Your task to perform on an android device: Where can I buy a nice beach chair? Image 0: 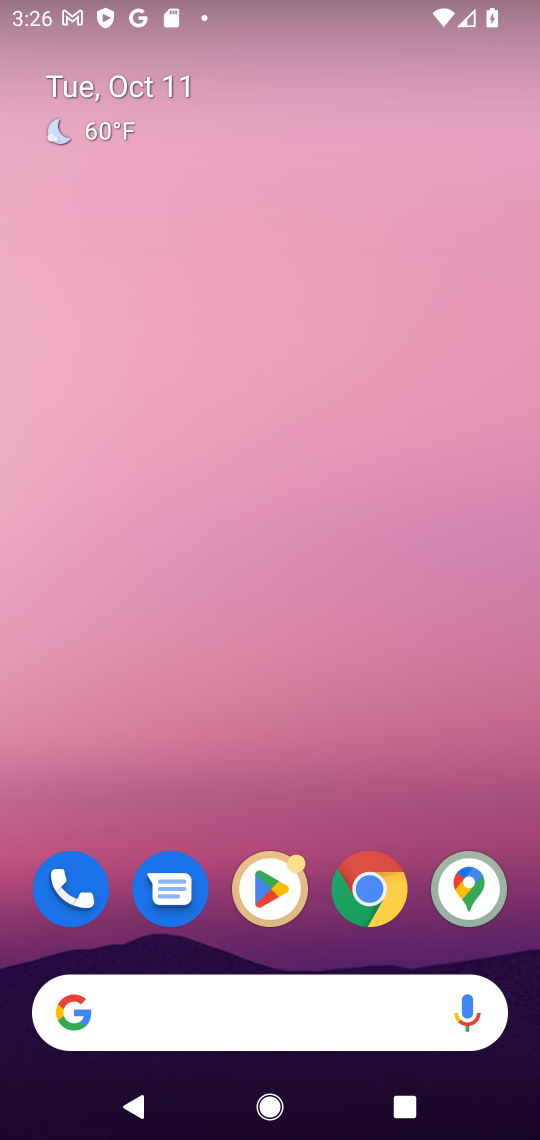
Step 0: drag from (259, 975) to (278, 426)
Your task to perform on an android device: Where can I buy a nice beach chair? Image 1: 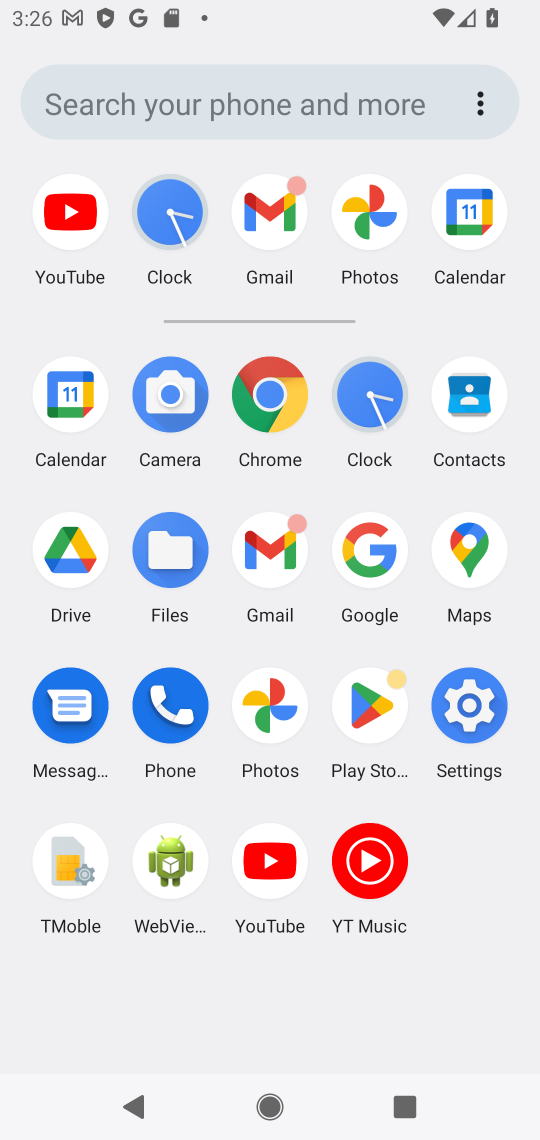
Step 1: click (372, 535)
Your task to perform on an android device: Where can I buy a nice beach chair? Image 2: 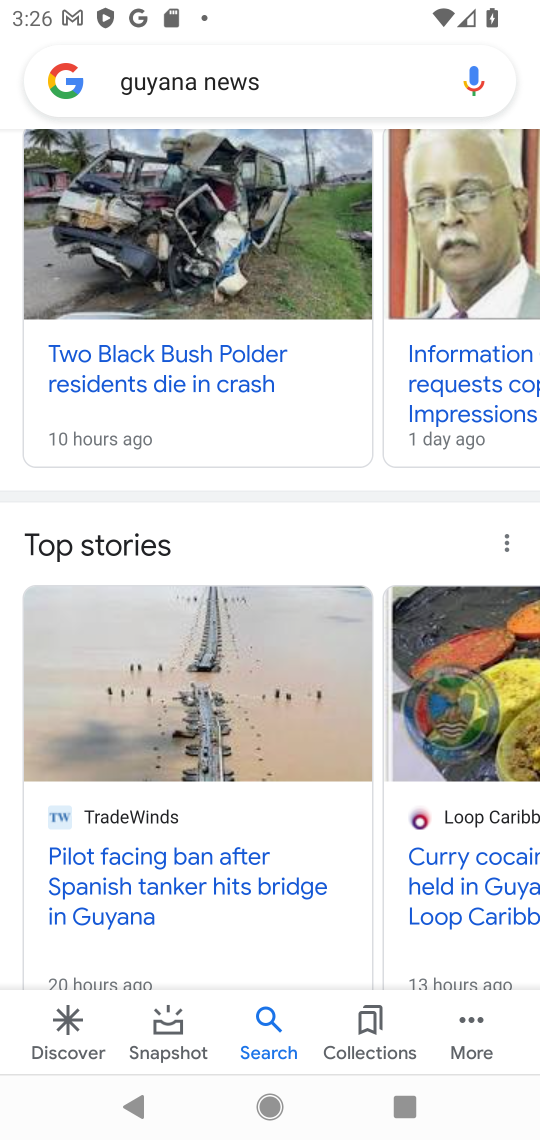
Step 2: click (290, 75)
Your task to perform on an android device: Where can I buy a nice beach chair? Image 3: 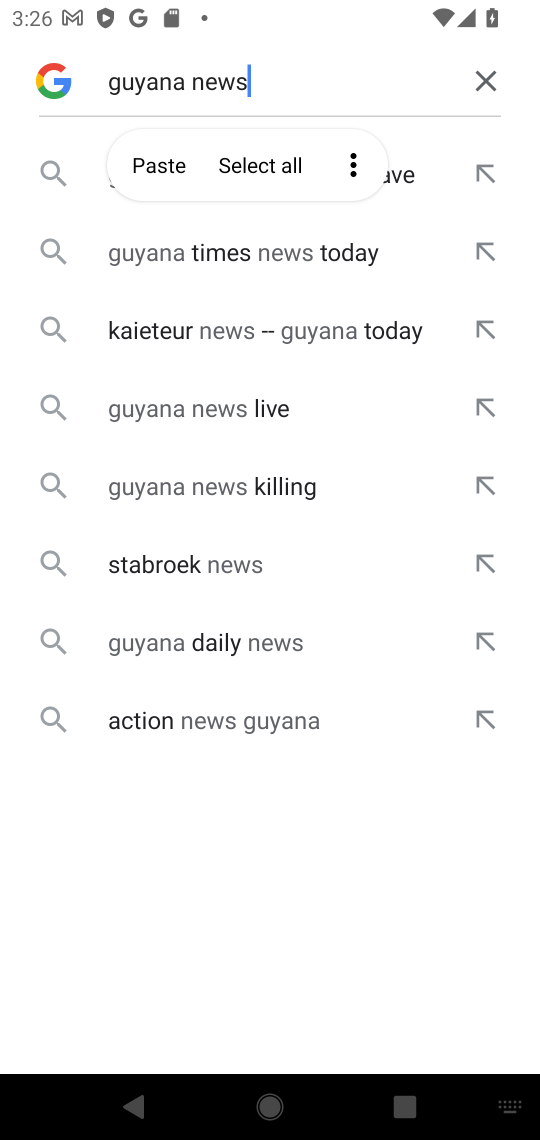
Step 3: click (489, 84)
Your task to perform on an android device: Where can I buy a nice beach chair? Image 4: 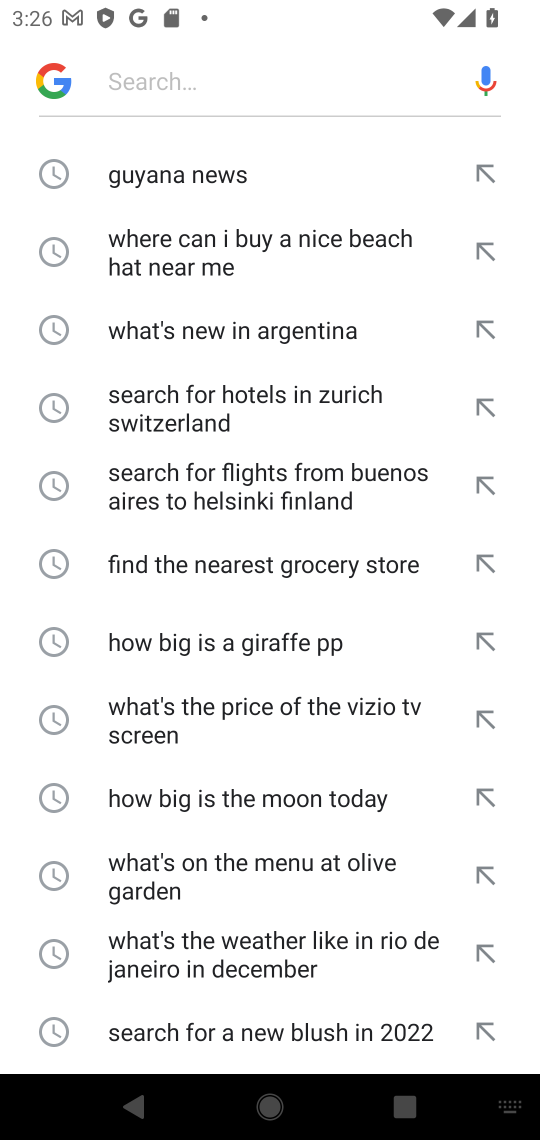
Step 4: click (256, 83)
Your task to perform on an android device: Where can I buy a nice beach chair? Image 5: 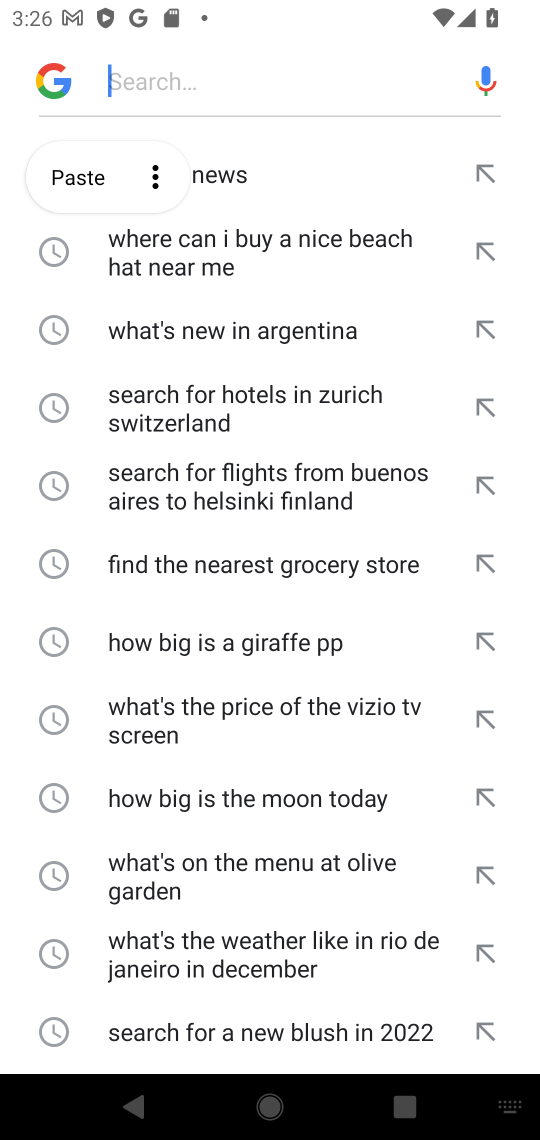
Step 5: type "Where can I buy a nice beach chair "
Your task to perform on an android device: Where can I buy a nice beach chair? Image 6: 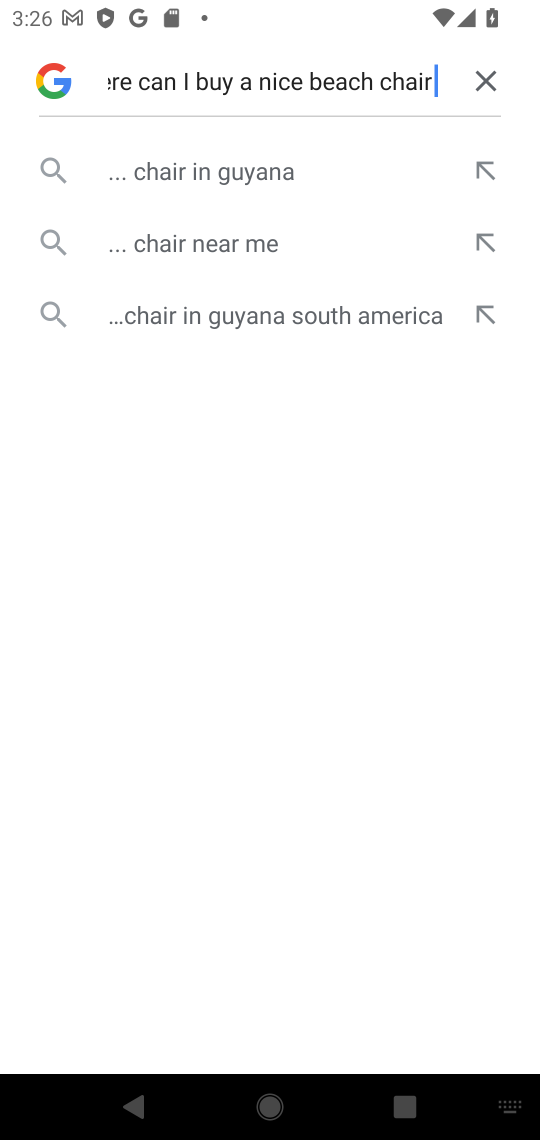
Step 6: click (240, 162)
Your task to perform on an android device: Where can I buy a nice beach chair? Image 7: 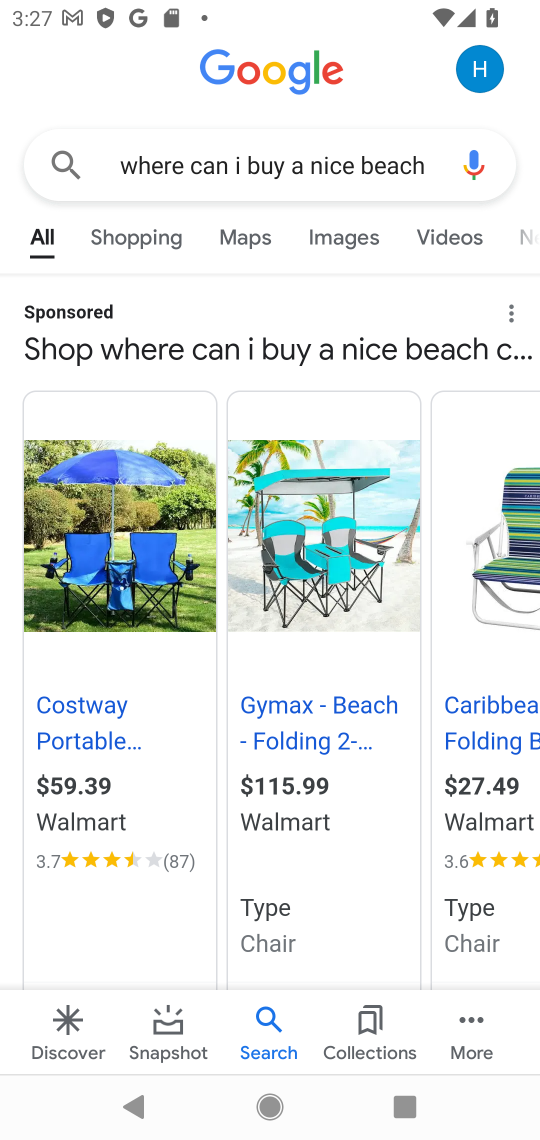
Step 7: task complete